Your task to perform on an android device: Turn on the flashlight Image 0: 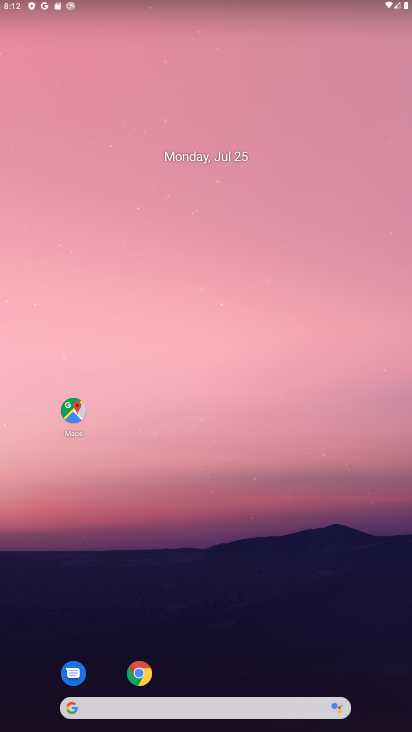
Step 0: drag from (236, 678) to (246, 152)
Your task to perform on an android device: Turn on the flashlight Image 1: 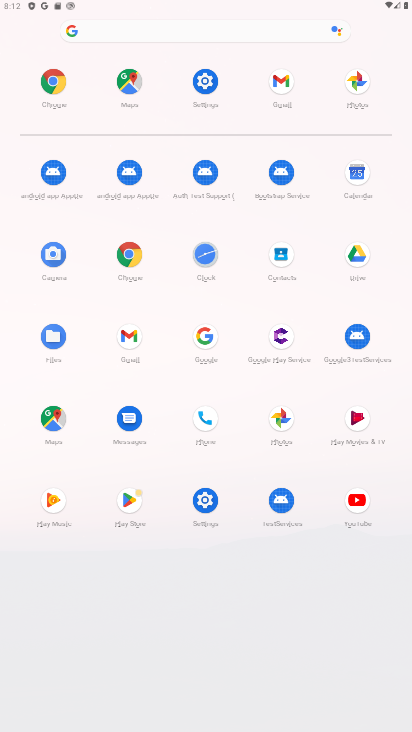
Step 1: click (198, 87)
Your task to perform on an android device: Turn on the flashlight Image 2: 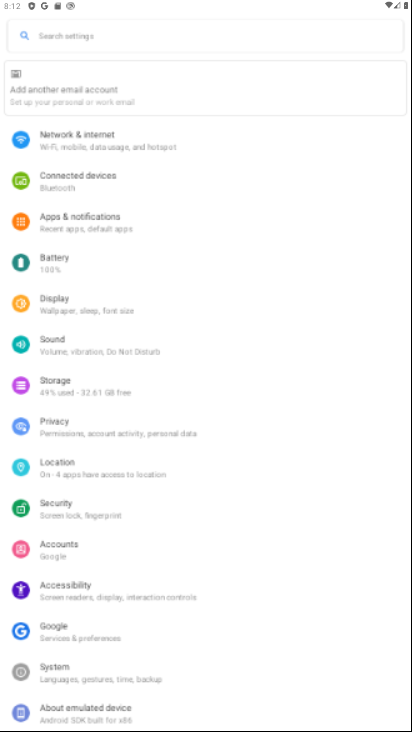
Step 2: task complete